Your task to perform on an android device: toggle notifications settings in the gmail app Image 0: 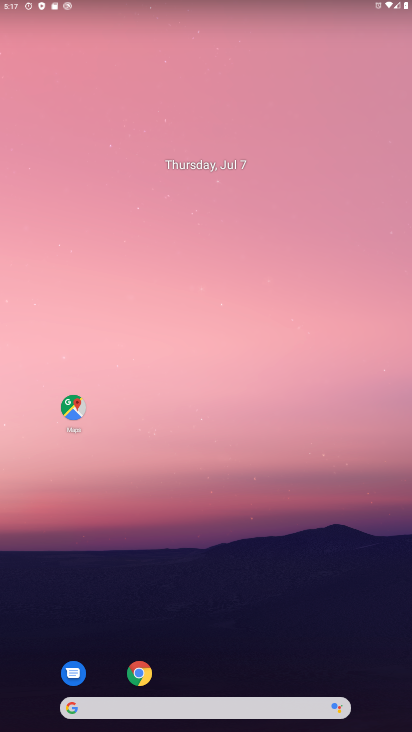
Step 0: drag from (223, 636) to (267, 6)
Your task to perform on an android device: toggle notifications settings in the gmail app Image 1: 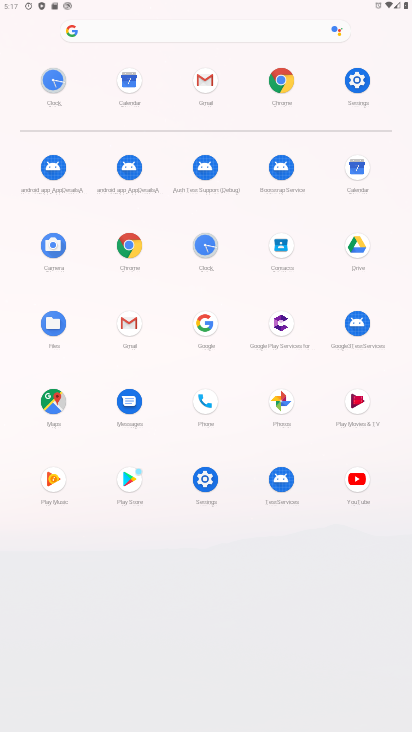
Step 1: click (119, 330)
Your task to perform on an android device: toggle notifications settings in the gmail app Image 2: 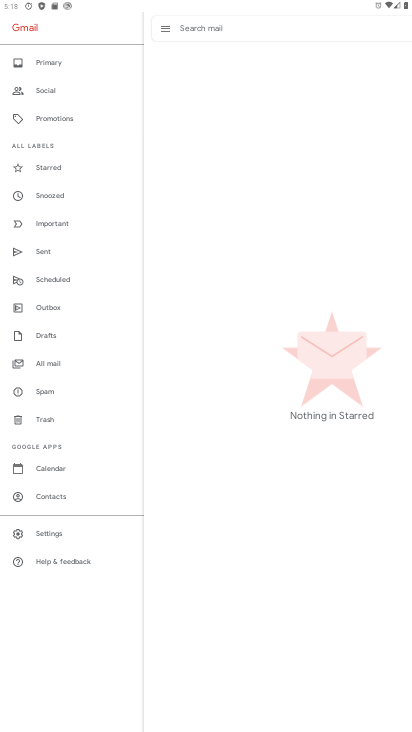
Step 2: click (58, 532)
Your task to perform on an android device: toggle notifications settings in the gmail app Image 3: 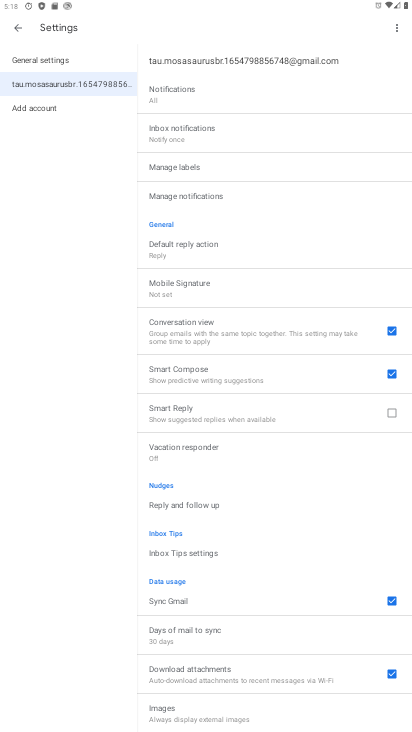
Step 3: click (206, 188)
Your task to perform on an android device: toggle notifications settings in the gmail app Image 4: 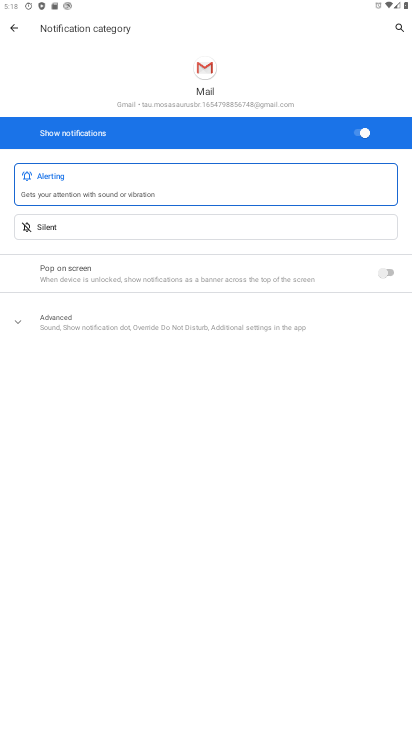
Step 4: task complete